Your task to perform on an android device: empty trash in google photos Image 0: 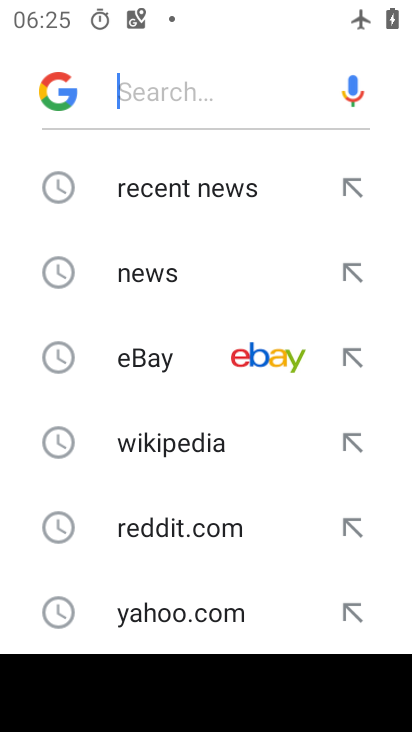
Step 0: press home button
Your task to perform on an android device: empty trash in google photos Image 1: 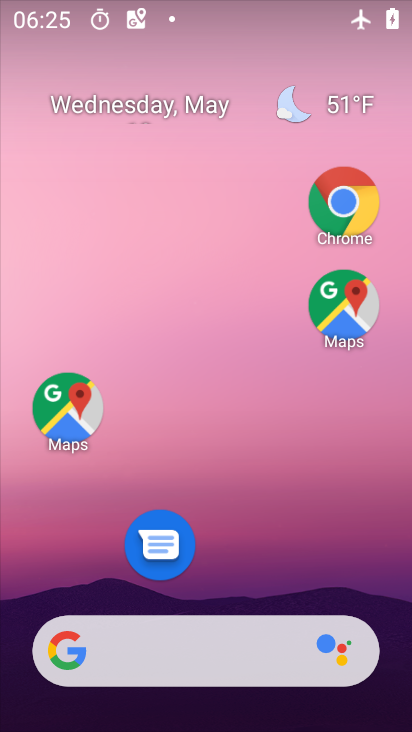
Step 1: drag from (238, 67) to (205, 1)
Your task to perform on an android device: empty trash in google photos Image 2: 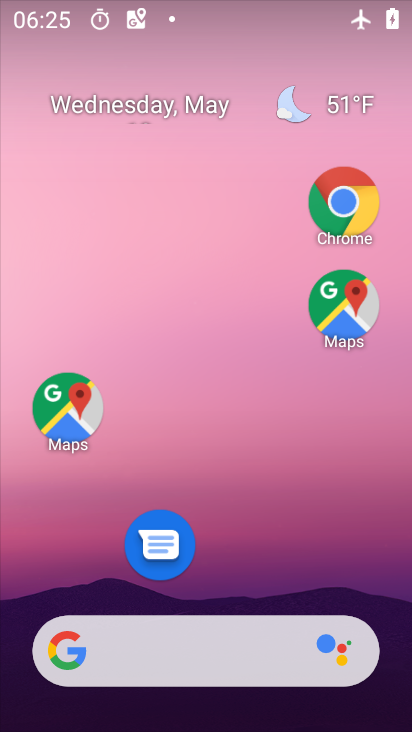
Step 2: drag from (235, 515) to (165, 7)
Your task to perform on an android device: empty trash in google photos Image 3: 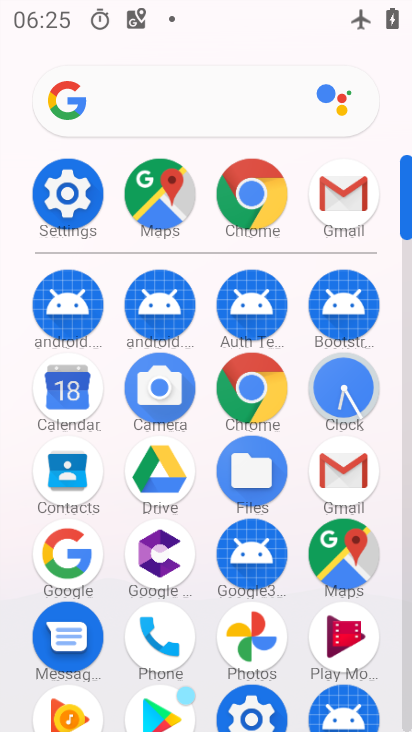
Step 3: click (251, 652)
Your task to perform on an android device: empty trash in google photos Image 4: 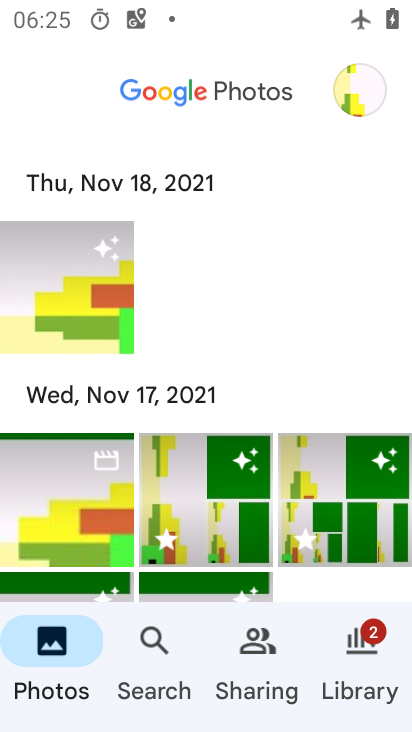
Step 4: click (350, 673)
Your task to perform on an android device: empty trash in google photos Image 5: 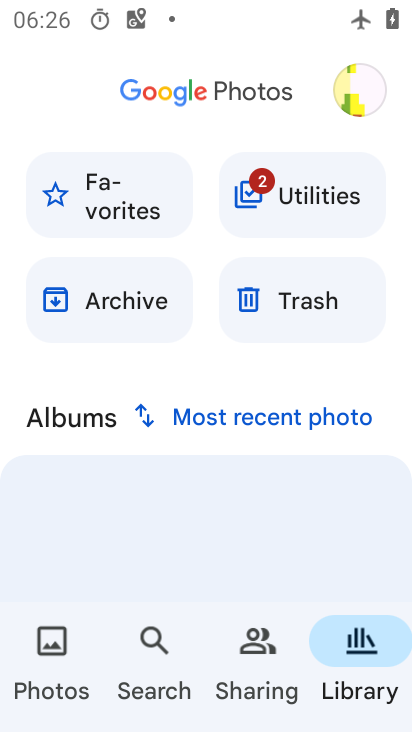
Step 5: click (287, 300)
Your task to perform on an android device: empty trash in google photos Image 6: 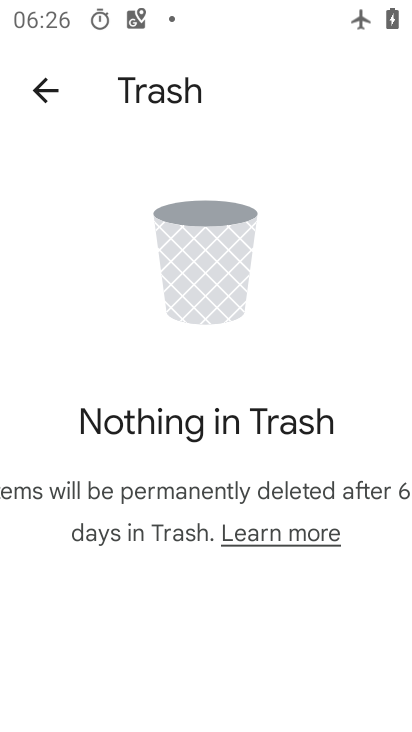
Step 6: task complete